Your task to perform on an android device: Open Youtube and go to "Your channel" Image 0: 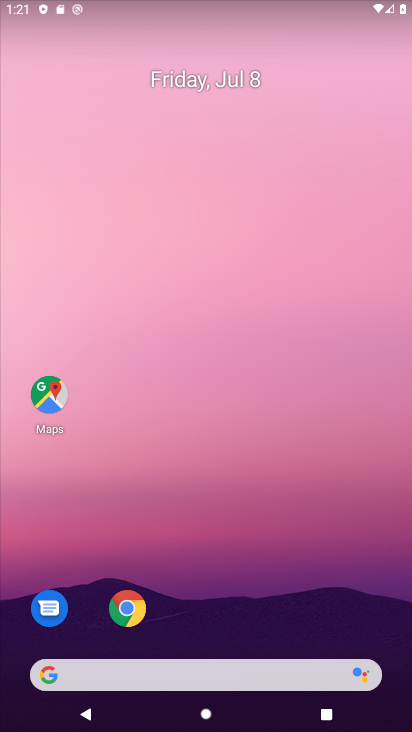
Step 0: press home button
Your task to perform on an android device: Open Youtube and go to "Your channel" Image 1: 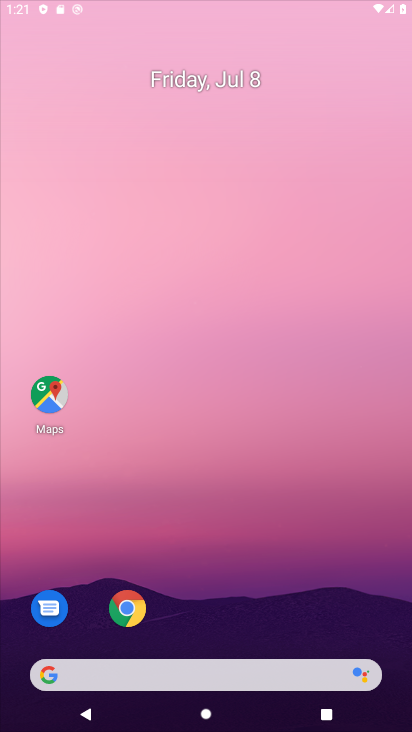
Step 1: drag from (194, 611) to (286, 148)
Your task to perform on an android device: Open Youtube and go to "Your channel" Image 2: 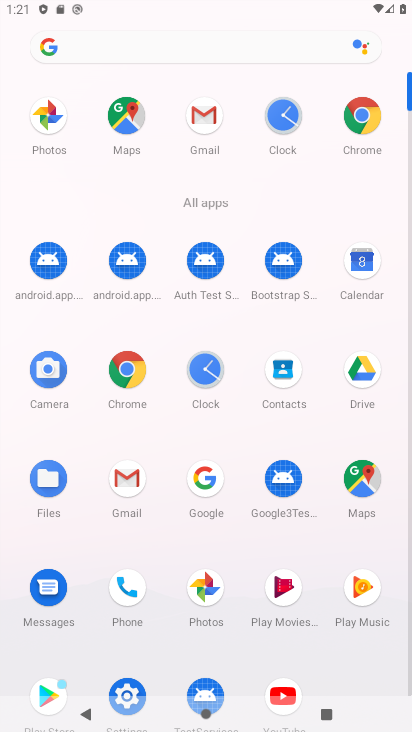
Step 2: click (282, 679)
Your task to perform on an android device: Open Youtube and go to "Your channel" Image 3: 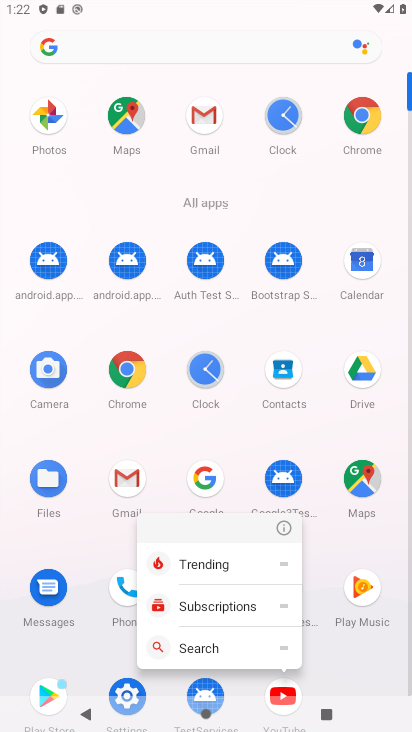
Step 3: click (281, 690)
Your task to perform on an android device: Open Youtube and go to "Your channel" Image 4: 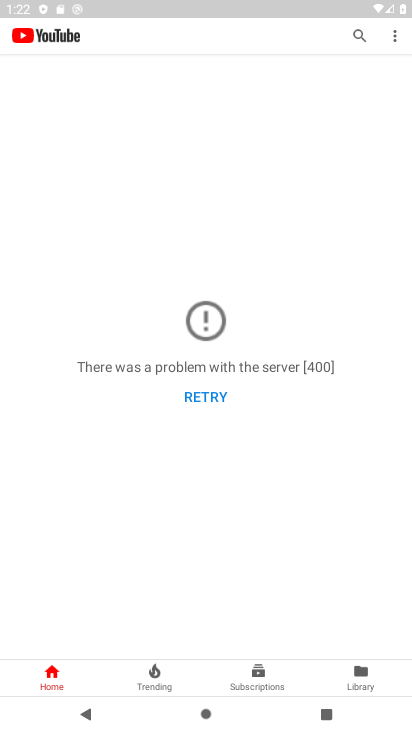
Step 4: click (346, 683)
Your task to perform on an android device: Open Youtube and go to "Your channel" Image 5: 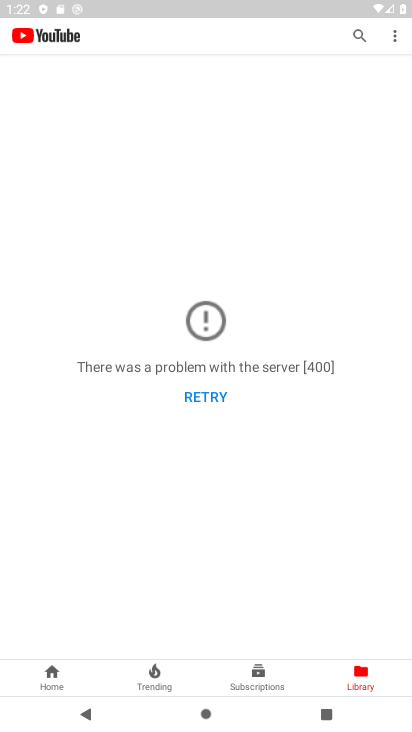
Step 5: task complete